Your task to perform on an android device: allow cookies in the chrome app Image 0: 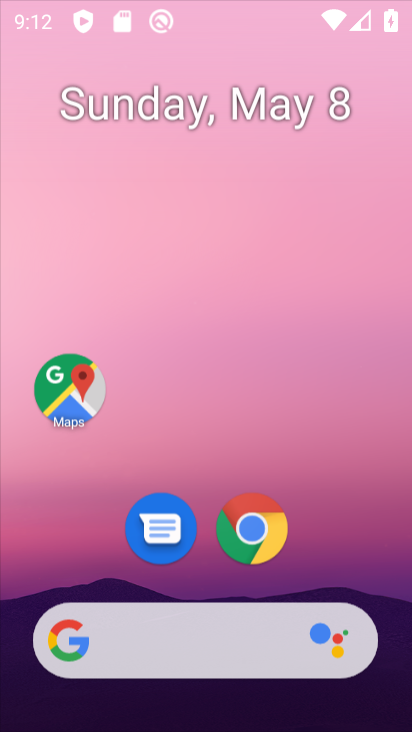
Step 0: click (240, 197)
Your task to perform on an android device: allow cookies in the chrome app Image 1: 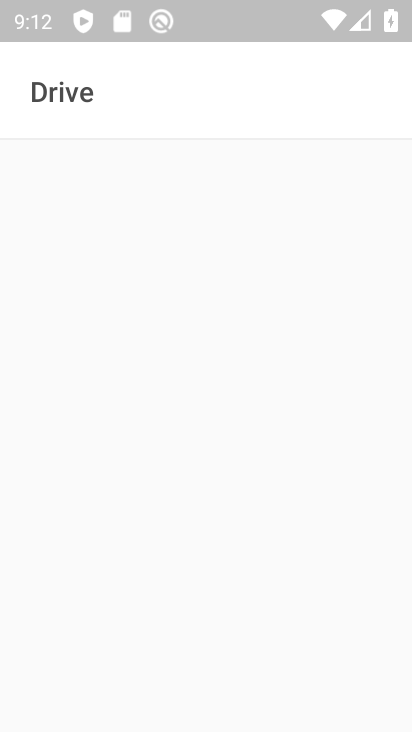
Step 1: press home button
Your task to perform on an android device: allow cookies in the chrome app Image 2: 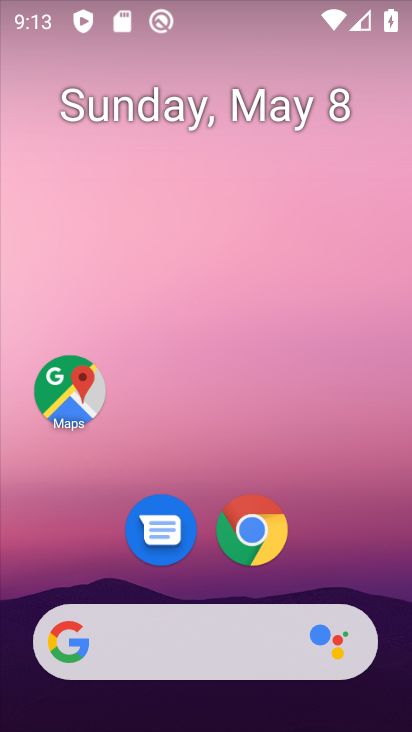
Step 2: click (239, 528)
Your task to perform on an android device: allow cookies in the chrome app Image 3: 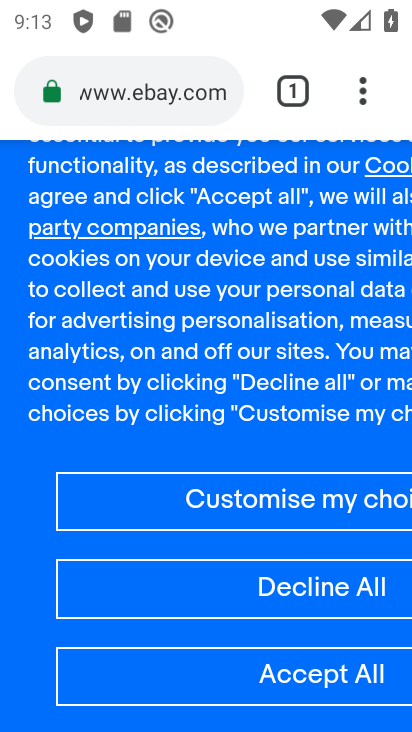
Step 3: click (368, 100)
Your task to perform on an android device: allow cookies in the chrome app Image 4: 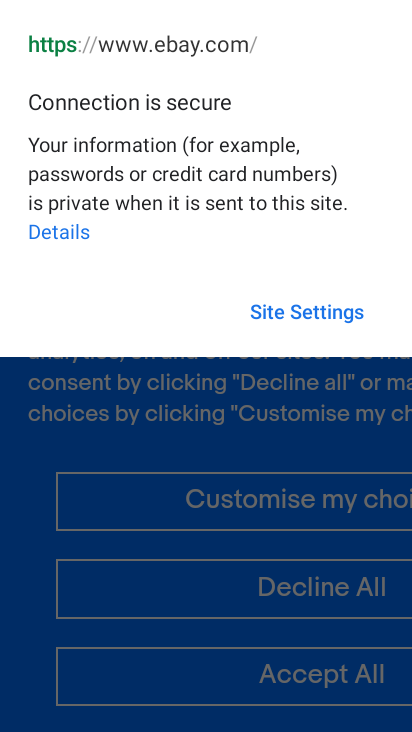
Step 4: click (25, 432)
Your task to perform on an android device: allow cookies in the chrome app Image 5: 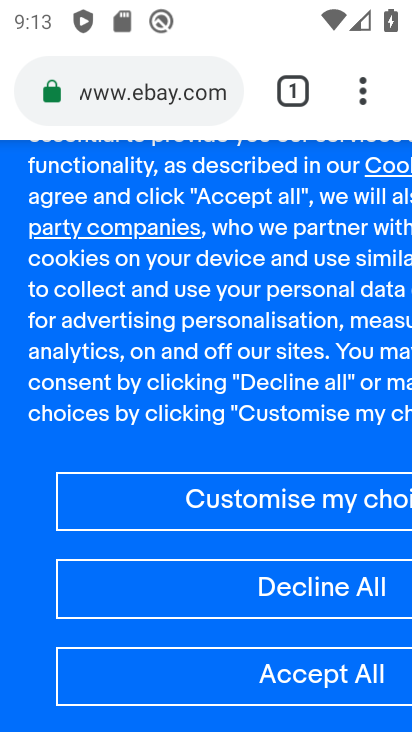
Step 5: click (294, 97)
Your task to perform on an android device: allow cookies in the chrome app Image 6: 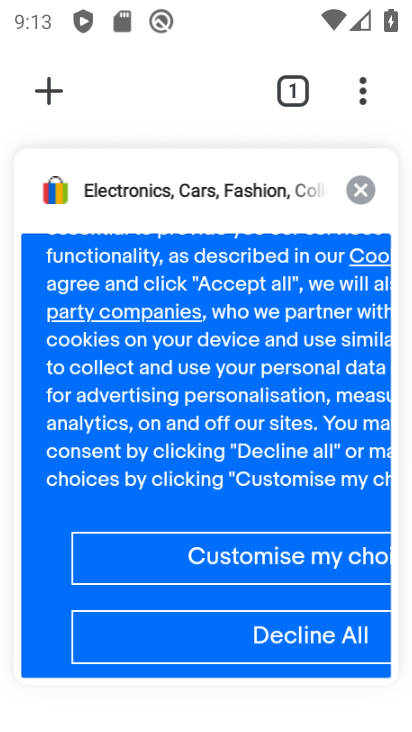
Step 6: click (360, 201)
Your task to perform on an android device: allow cookies in the chrome app Image 7: 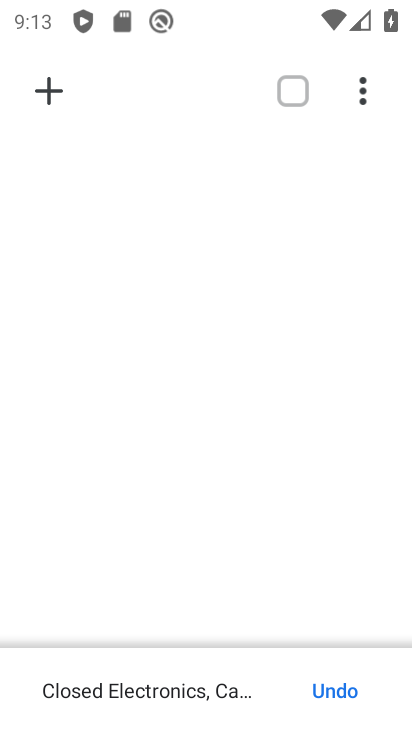
Step 7: click (363, 96)
Your task to perform on an android device: allow cookies in the chrome app Image 8: 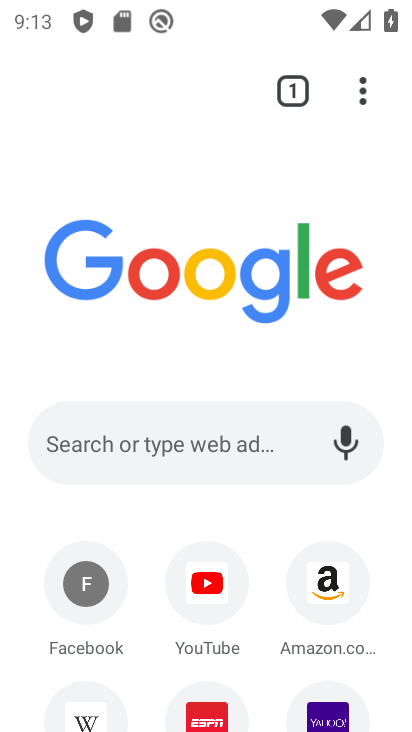
Step 8: click (363, 96)
Your task to perform on an android device: allow cookies in the chrome app Image 9: 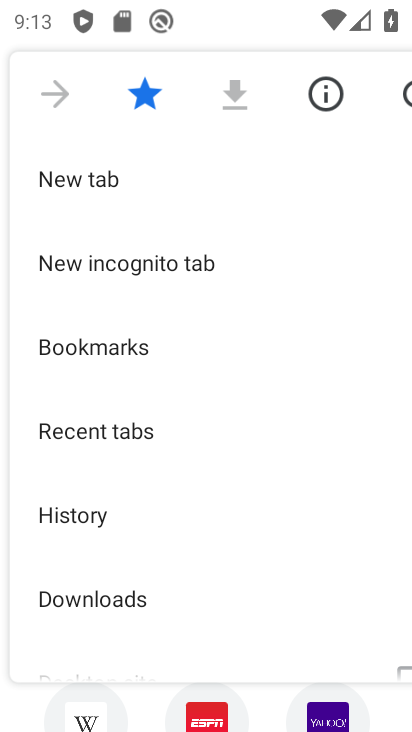
Step 9: drag from (131, 630) to (145, 268)
Your task to perform on an android device: allow cookies in the chrome app Image 10: 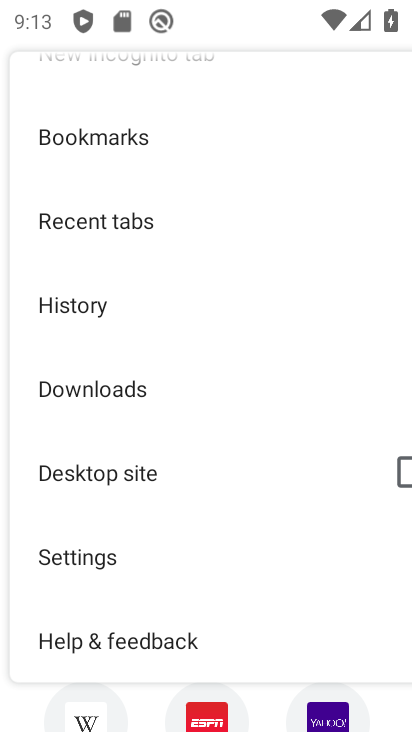
Step 10: click (78, 566)
Your task to perform on an android device: allow cookies in the chrome app Image 11: 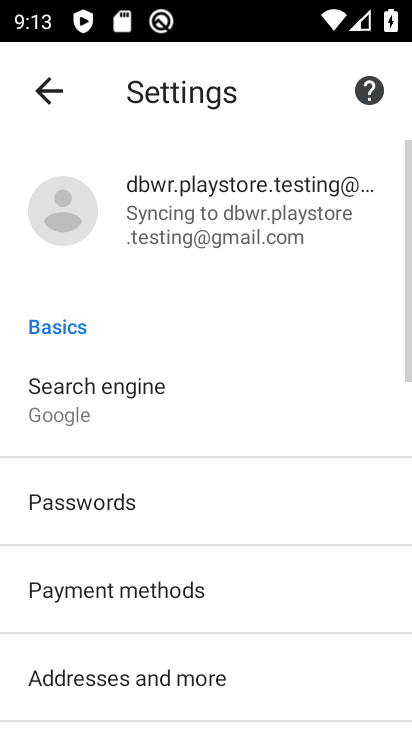
Step 11: drag from (110, 710) to (110, 342)
Your task to perform on an android device: allow cookies in the chrome app Image 12: 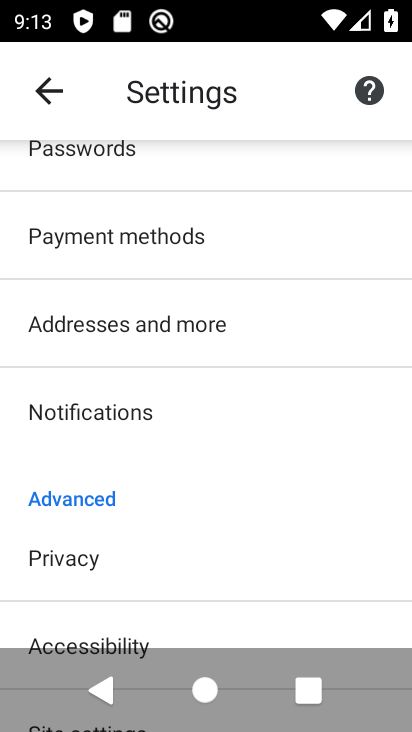
Step 12: drag from (98, 616) to (107, 292)
Your task to perform on an android device: allow cookies in the chrome app Image 13: 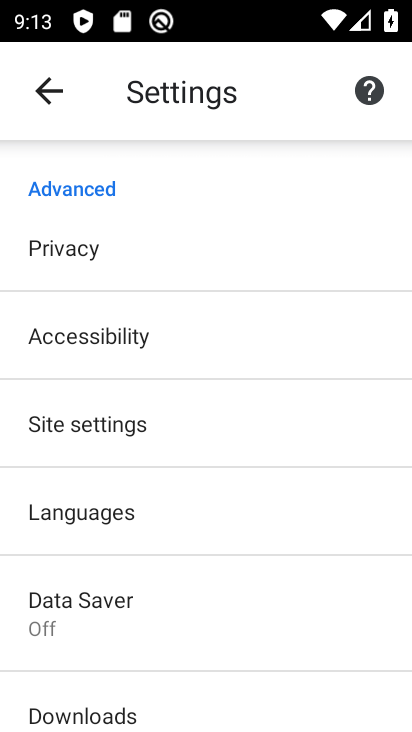
Step 13: drag from (112, 696) to (116, 379)
Your task to perform on an android device: allow cookies in the chrome app Image 14: 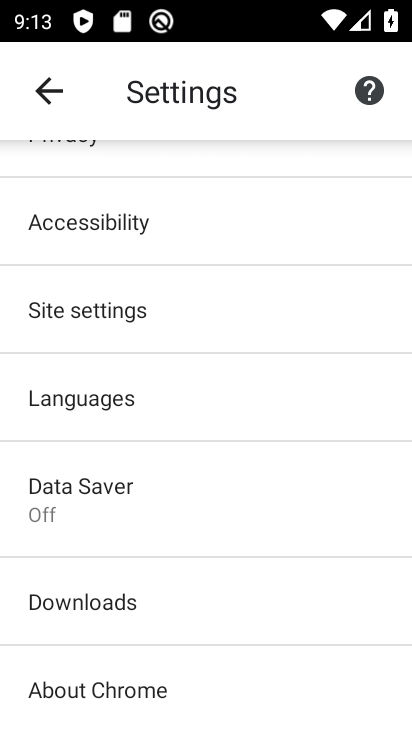
Step 14: click (66, 313)
Your task to perform on an android device: allow cookies in the chrome app Image 15: 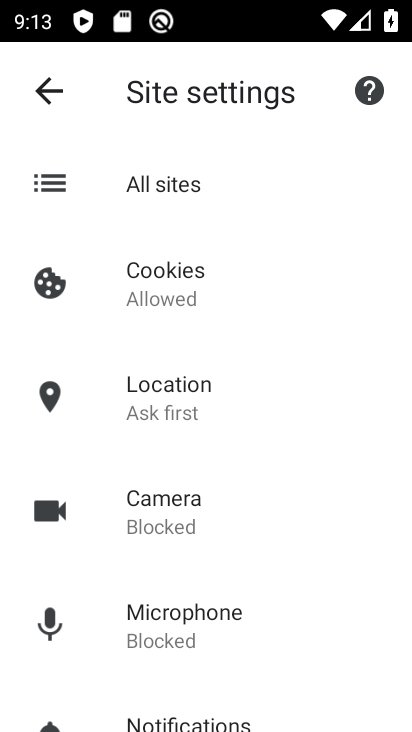
Step 15: click (141, 299)
Your task to perform on an android device: allow cookies in the chrome app Image 16: 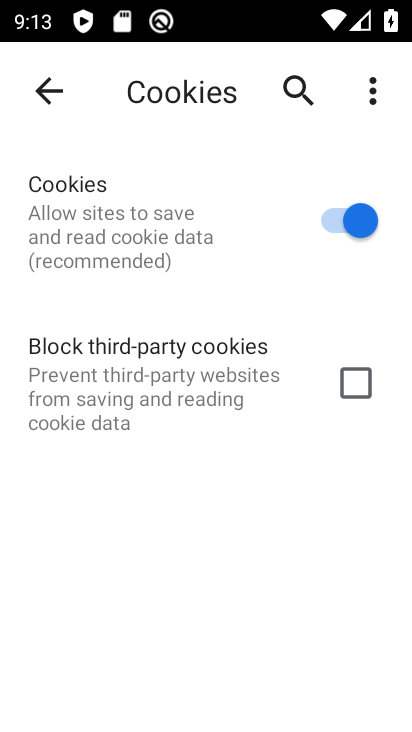
Step 16: task complete